Your task to perform on an android device: Open Yahoo.com Image 0: 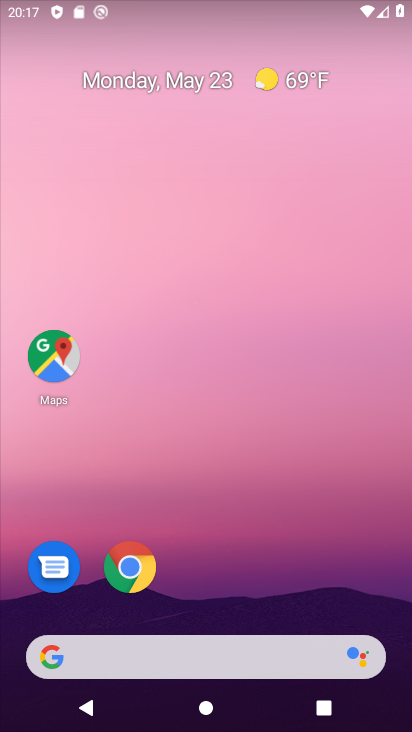
Step 0: drag from (234, 601) to (278, 30)
Your task to perform on an android device: Open Yahoo.com Image 1: 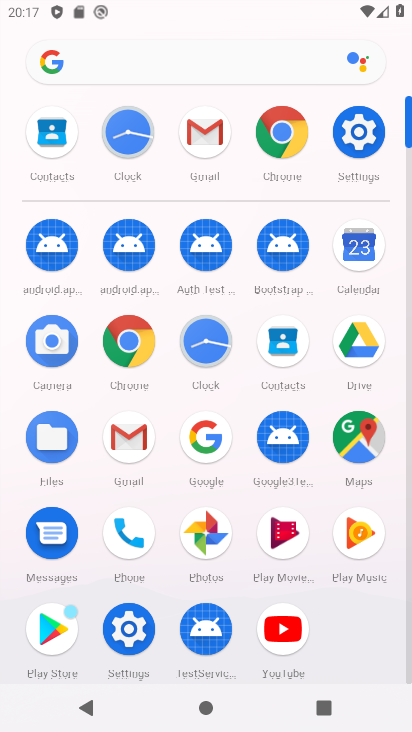
Step 1: click (289, 155)
Your task to perform on an android device: Open Yahoo.com Image 2: 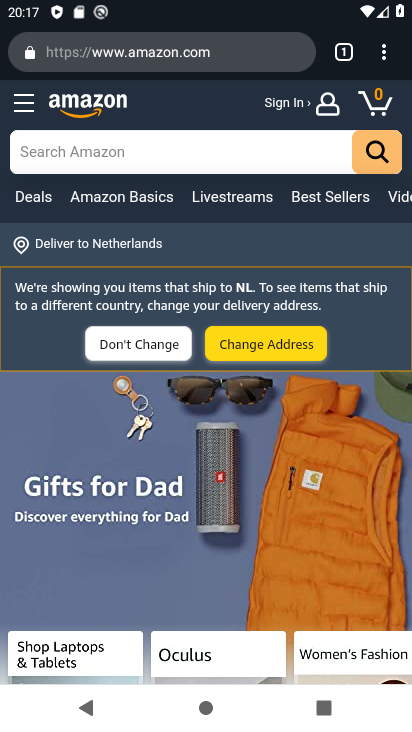
Step 2: click (182, 55)
Your task to perform on an android device: Open Yahoo.com Image 3: 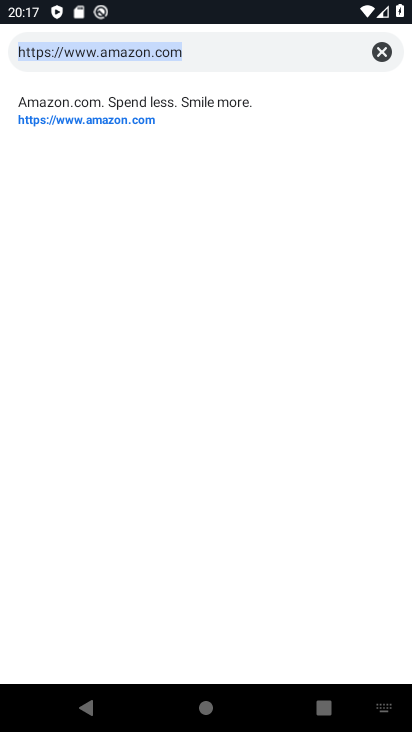
Step 3: type "yahoo.com"
Your task to perform on an android device: Open Yahoo.com Image 4: 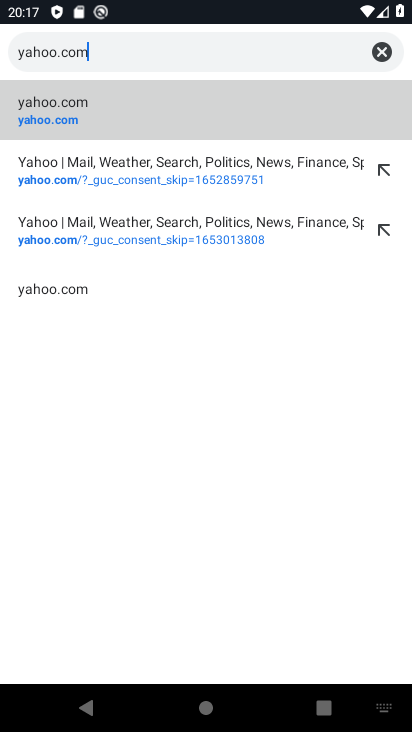
Step 4: click (86, 100)
Your task to perform on an android device: Open Yahoo.com Image 5: 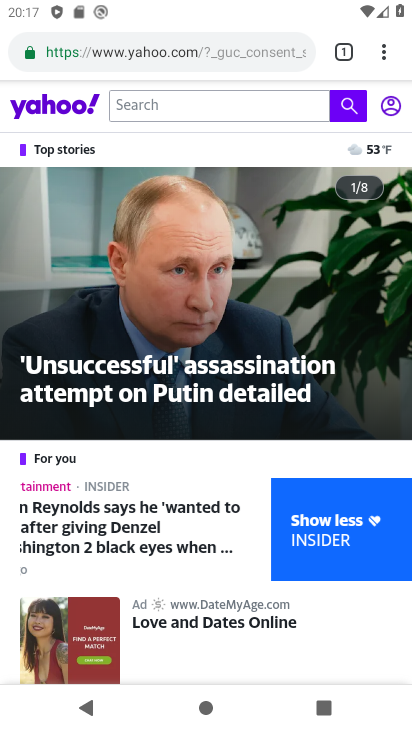
Step 5: task complete